Your task to perform on an android device: toggle translation in the chrome app Image 0: 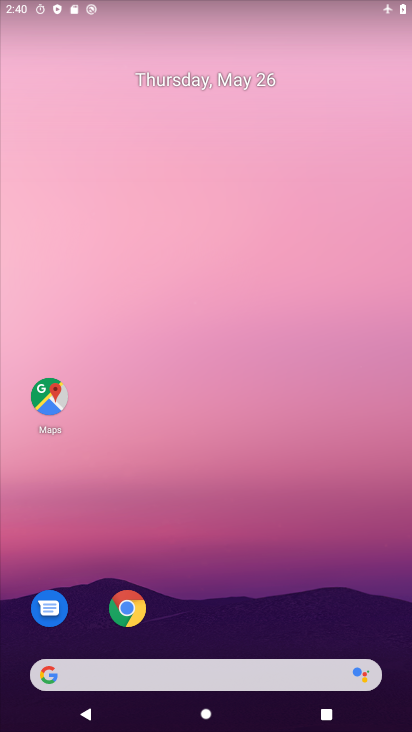
Step 0: drag from (289, 698) to (121, 58)
Your task to perform on an android device: toggle translation in the chrome app Image 1: 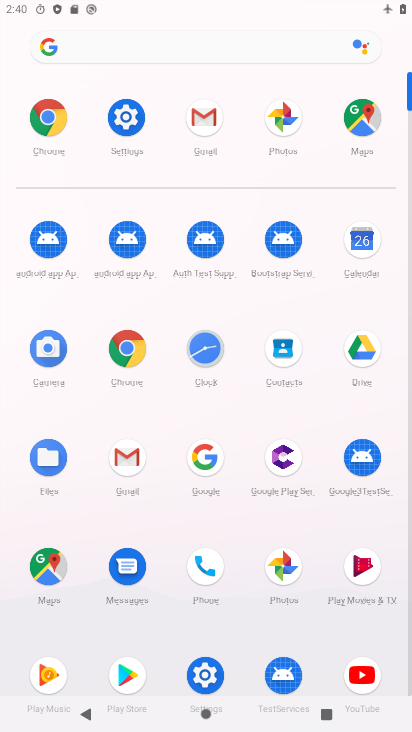
Step 1: click (45, 121)
Your task to perform on an android device: toggle translation in the chrome app Image 2: 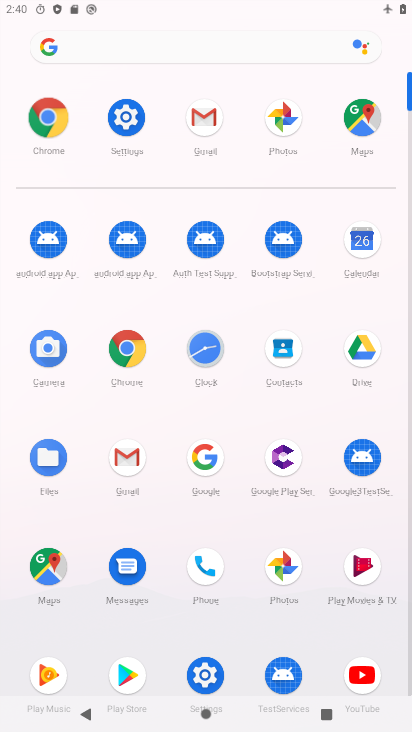
Step 2: click (45, 121)
Your task to perform on an android device: toggle translation in the chrome app Image 3: 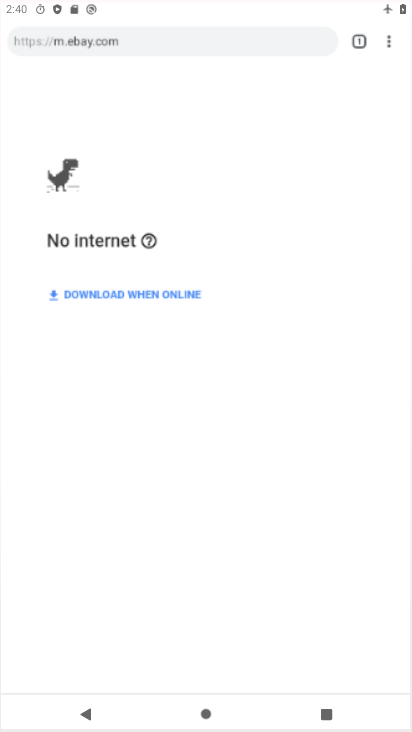
Step 3: click (47, 122)
Your task to perform on an android device: toggle translation in the chrome app Image 4: 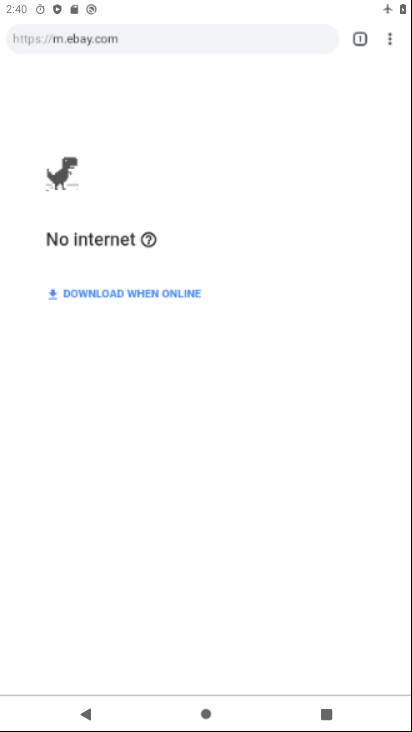
Step 4: click (47, 122)
Your task to perform on an android device: toggle translation in the chrome app Image 5: 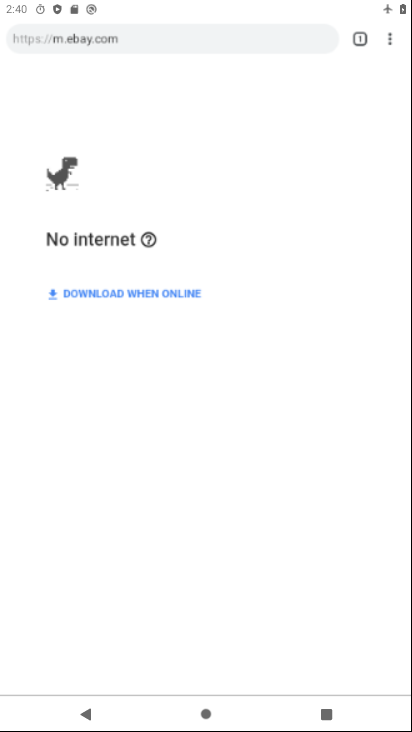
Step 5: click (48, 123)
Your task to perform on an android device: toggle translation in the chrome app Image 6: 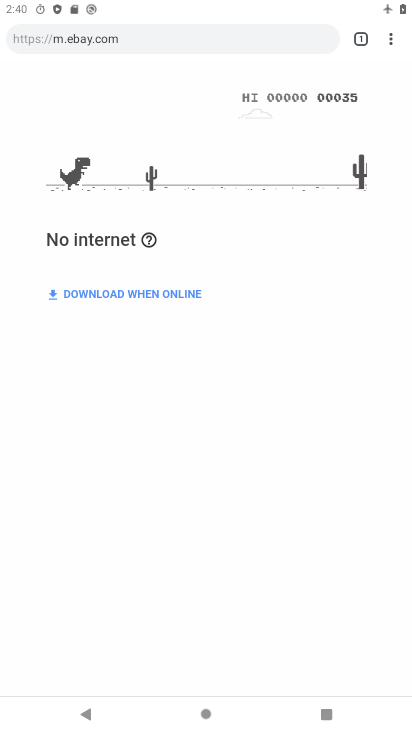
Step 6: press back button
Your task to perform on an android device: toggle translation in the chrome app Image 7: 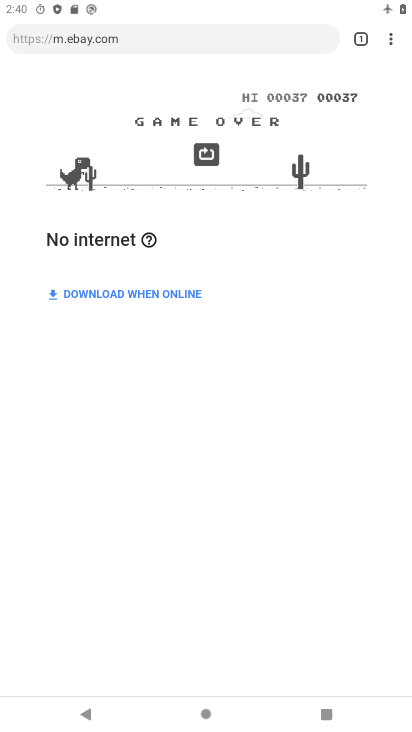
Step 7: press back button
Your task to perform on an android device: toggle translation in the chrome app Image 8: 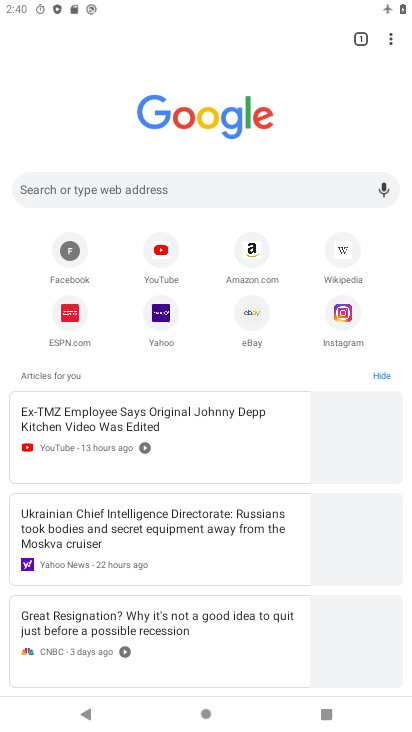
Step 8: press back button
Your task to perform on an android device: toggle translation in the chrome app Image 9: 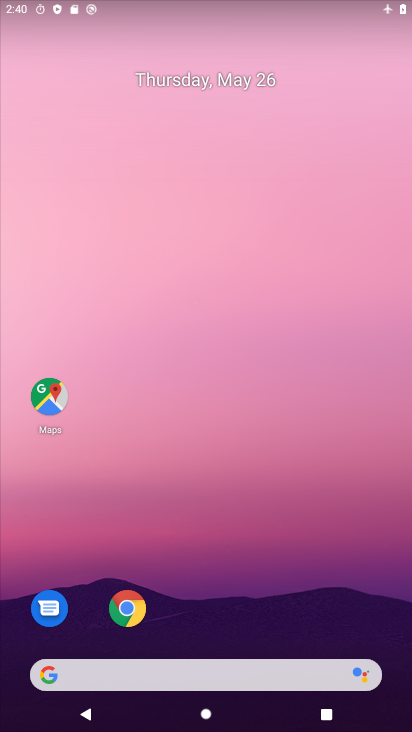
Step 9: drag from (274, 642) to (162, 33)
Your task to perform on an android device: toggle translation in the chrome app Image 10: 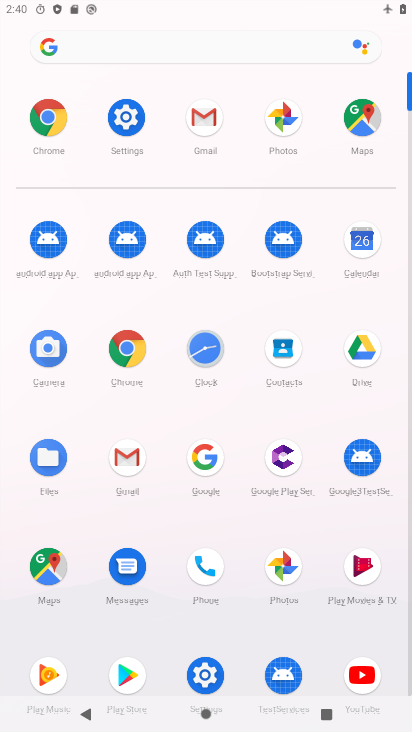
Step 10: click (58, 134)
Your task to perform on an android device: toggle translation in the chrome app Image 11: 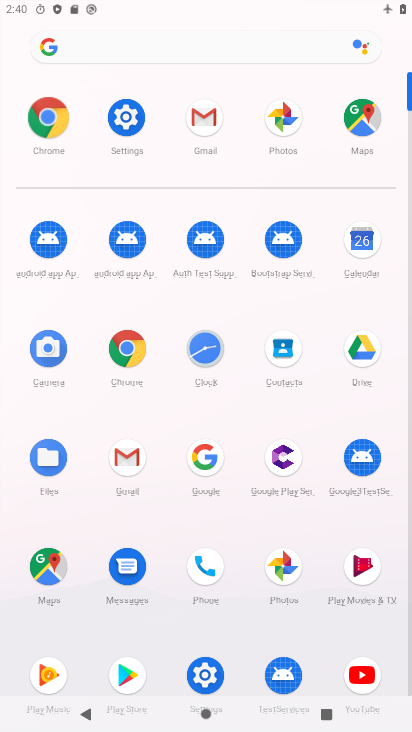
Step 11: click (58, 134)
Your task to perform on an android device: toggle translation in the chrome app Image 12: 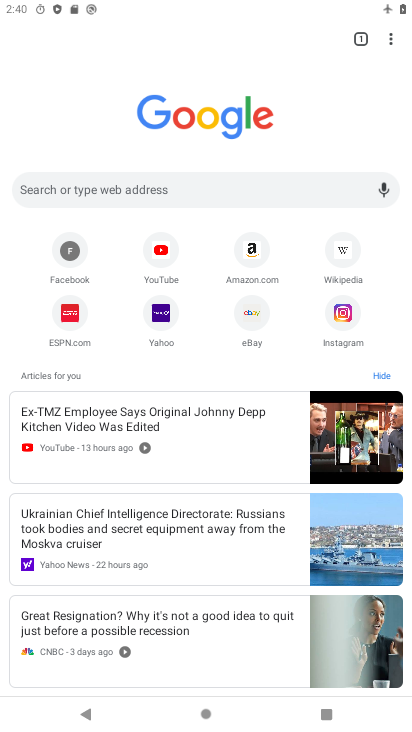
Step 12: press back button
Your task to perform on an android device: toggle translation in the chrome app Image 13: 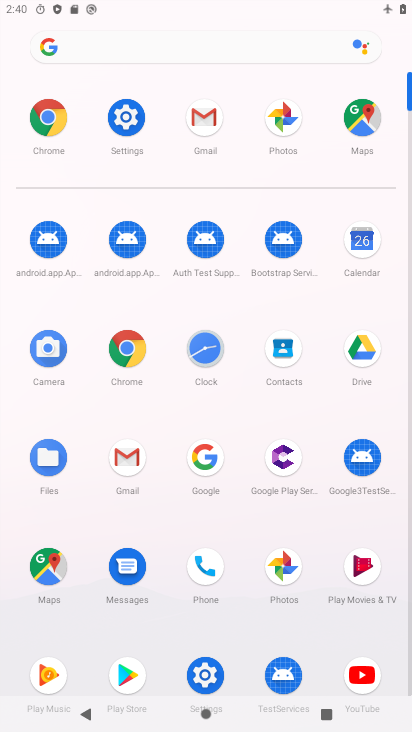
Step 13: click (120, 107)
Your task to perform on an android device: toggle translation in the chrome app Image 14: 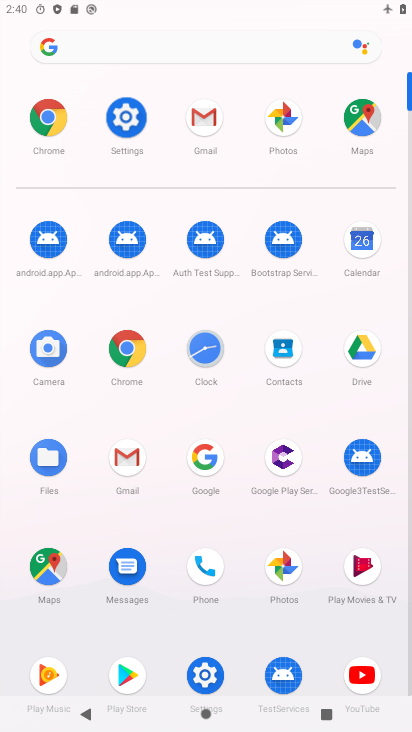
Step 14: click (119, 105)
Your task to perform on an android device: toggle translation in the chrome app Image 15: 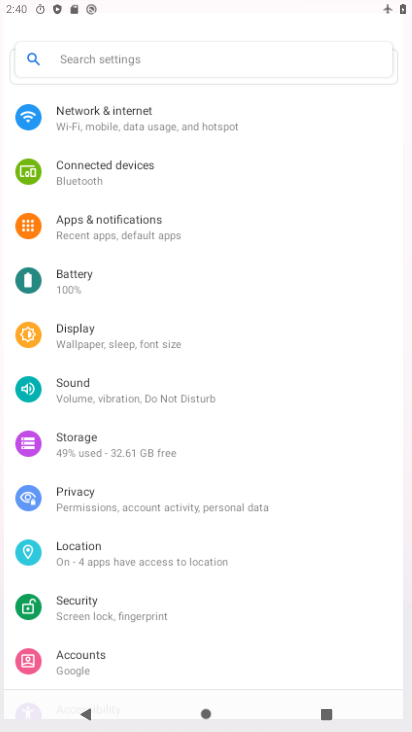
Step 15: click (120, 104)
Your task to perform on an android device: toggle translation in the chrome app Image 16: 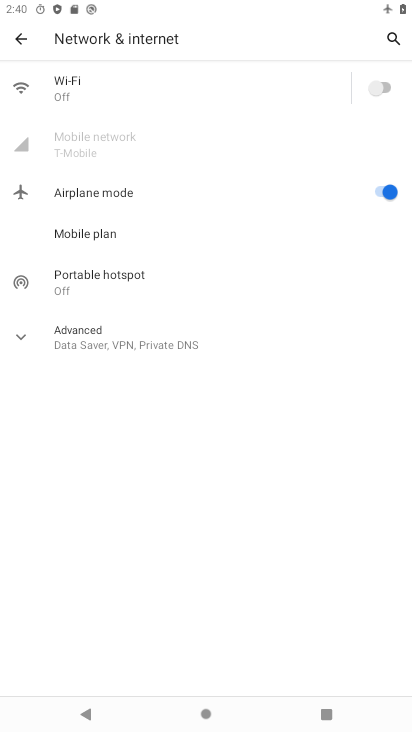
Step 16: click (9, 38)
Your task to perform on an android device: toggle translation in the chrome app Image 17: 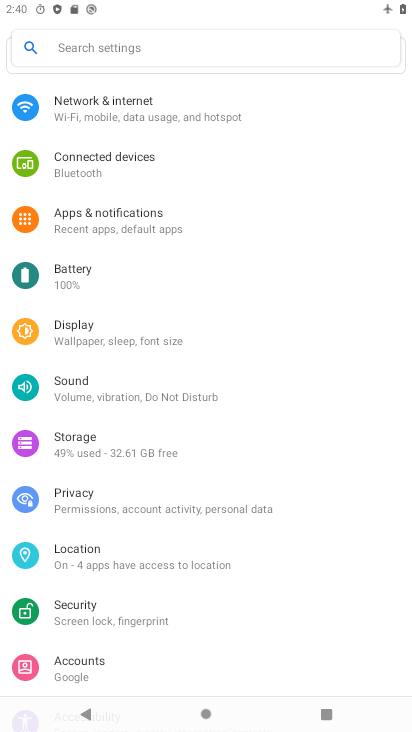
Step 17: click (109, 117)
Your task to perform on an android device: toggle translation in the chrome app Image 18: 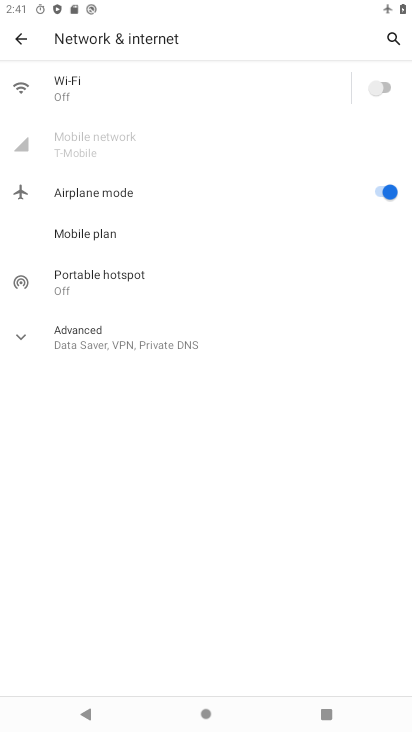
Step 18: click (372, 85)
Your task to perform on an android device: toggle translation in the chrome app Image 19: 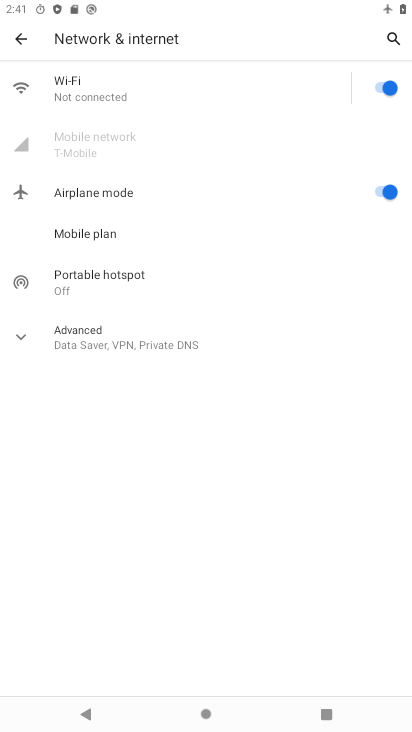
Step 19: click (384, 190)
Your task to perform on an android device: toggle translation in the chrome app Image 20: 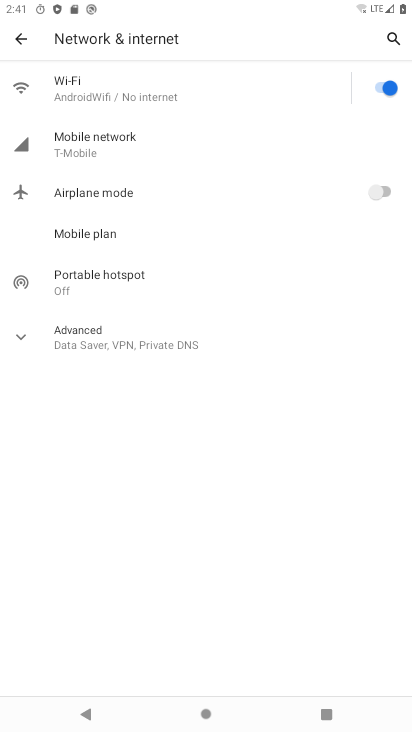
Step 20: press back button
Your task to perform on an android device: toggle translation in the chrome app Image 21: 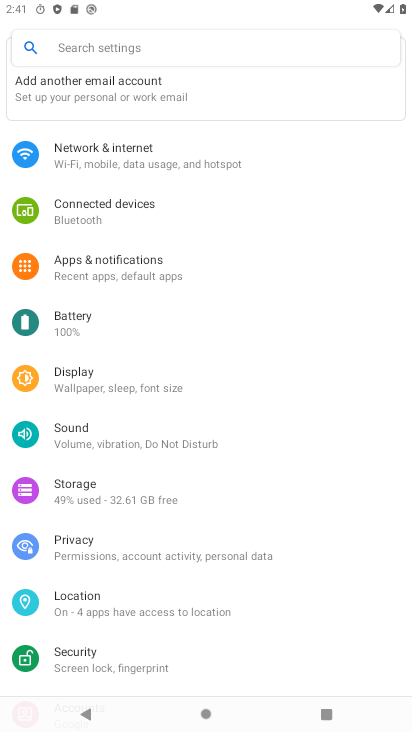
Step 21: press home button
Your task to perform on an android device: toggle translation in the chrome app Image 22: 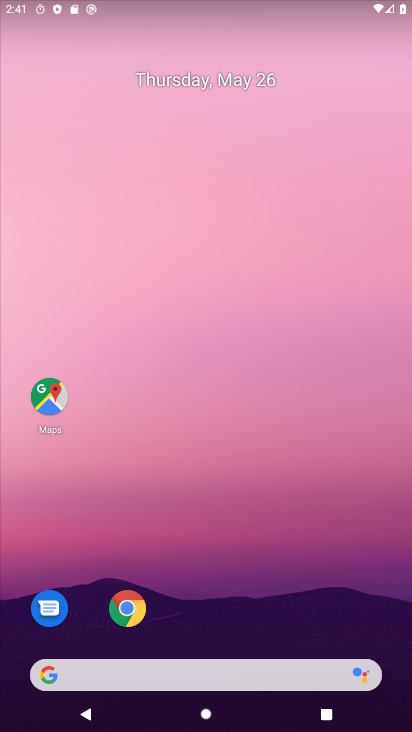
Step 22: drag from (250, 598) to (149, 125)
Your task to perform on an android device: toggle translation in the chrome app Image 23: 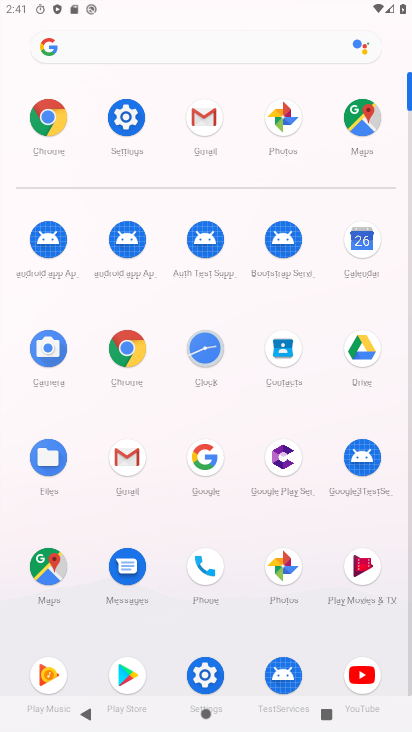
Step 23: click (46, 116)
Your task to perform on an android device: toggle translation in the chrome app Image 24: 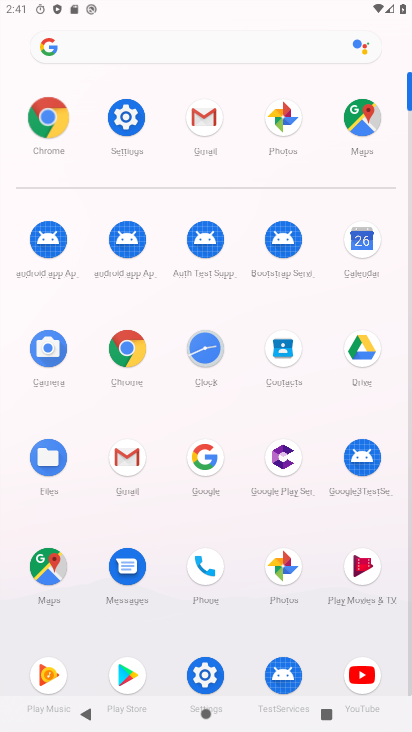
Step 24: click (46, 116)
Your task to perform on an android device: toggle translation in the chrome app Image 25: 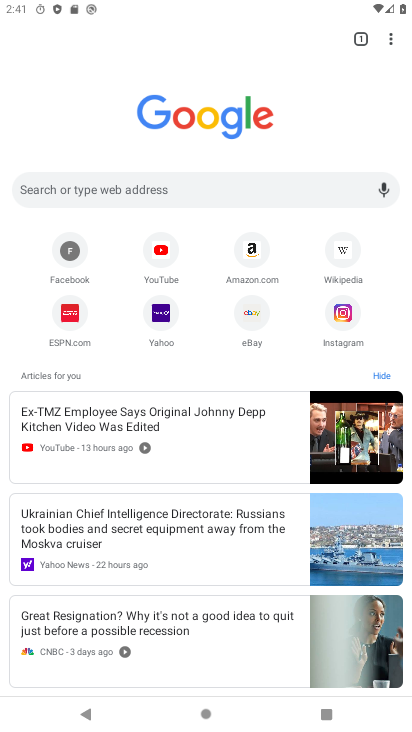
Step 25: drag from (388, 42) to (256, 375)
Your task to perform on an android device: toggle translation in the chrome app Image 26: 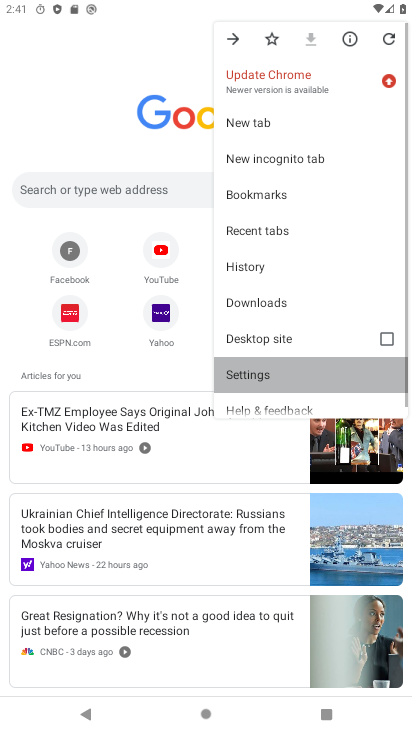
Step 26: click (254, 373)
Your task to perform on an android device: toggle translation in the chrome app Image 27: 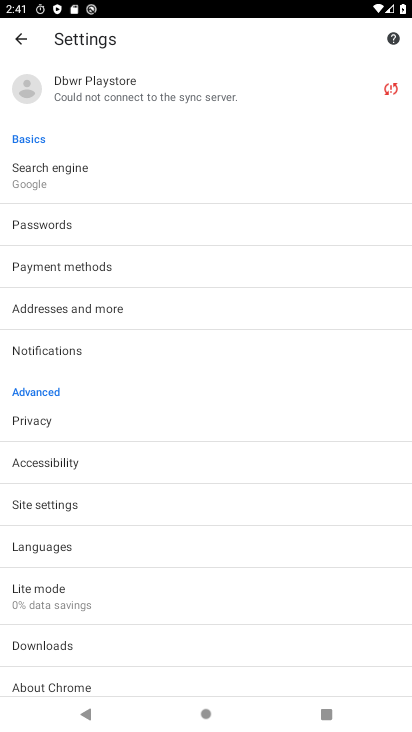
Step 27: click (33, 548)
Your task to perform on an android device: toggle translation in the chrome app Image 28: 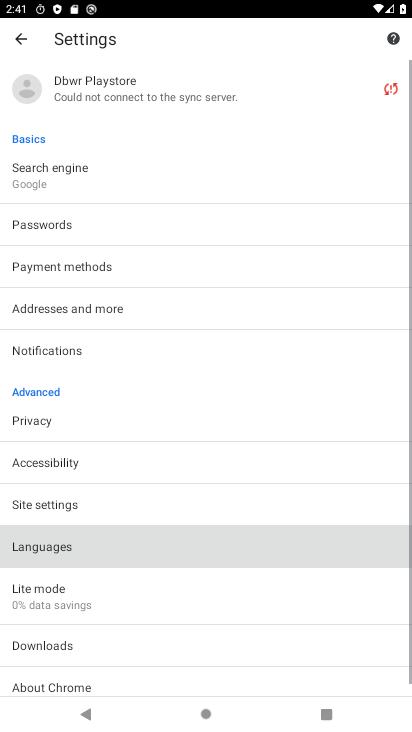
Step 28: click (29, 541)
Your task to perform on an android device: toggle translation in the chrome app Image 29: 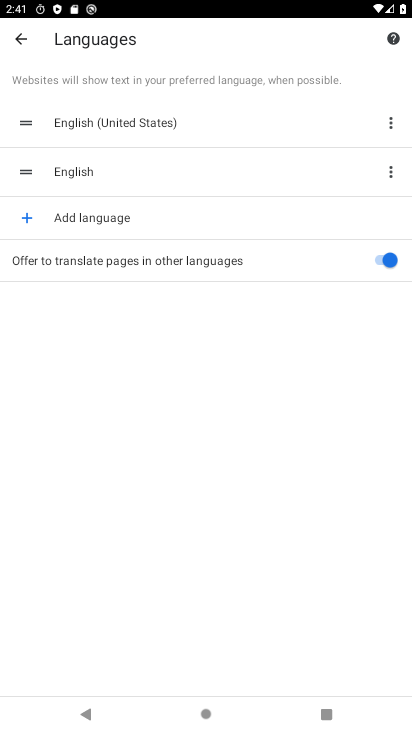
Step 29: click (382, 259)
Your task to perform on an android device: toggle translation in the chrome app Image 30: 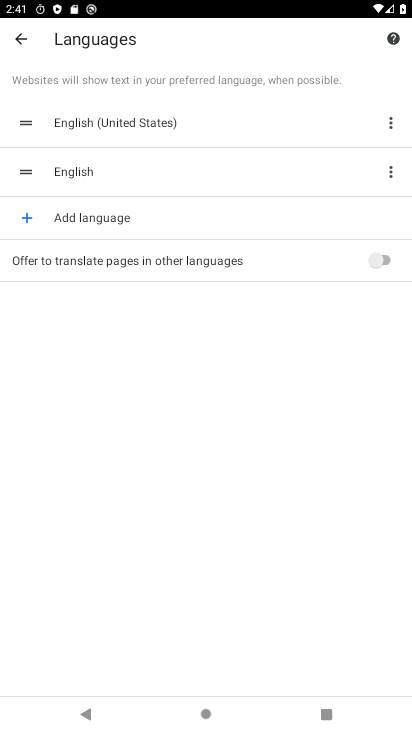
Step 30: task complete